Your task to perform on an android device: Open maps Image 0: 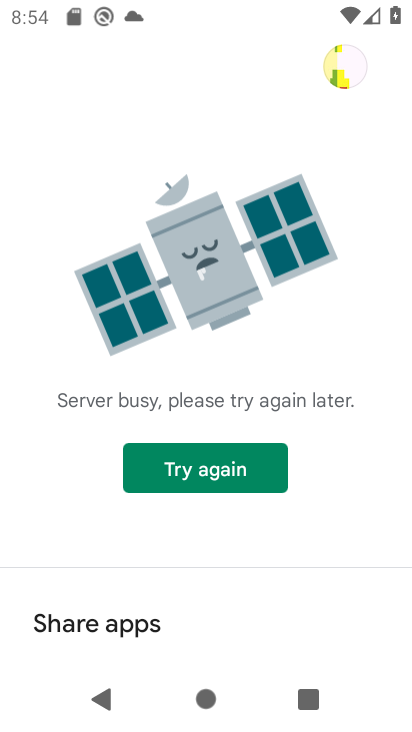
Step 0: press home button
Your task to perform on an android device: Open maps Image 1: 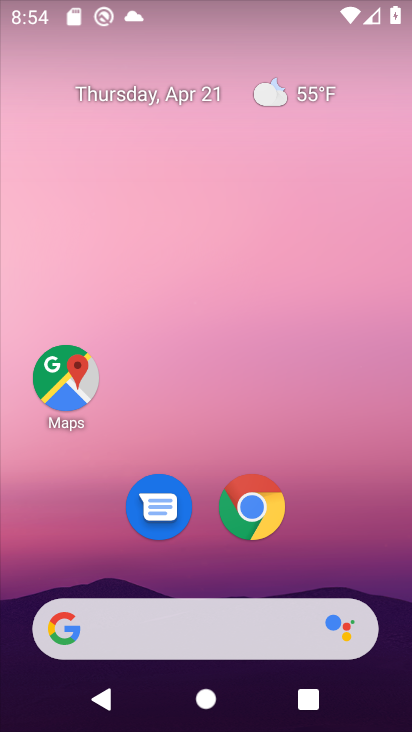
Step 1: drag from (281, 482) to (280, 210)
Your task to perform on an android device: Open maps Image 2: 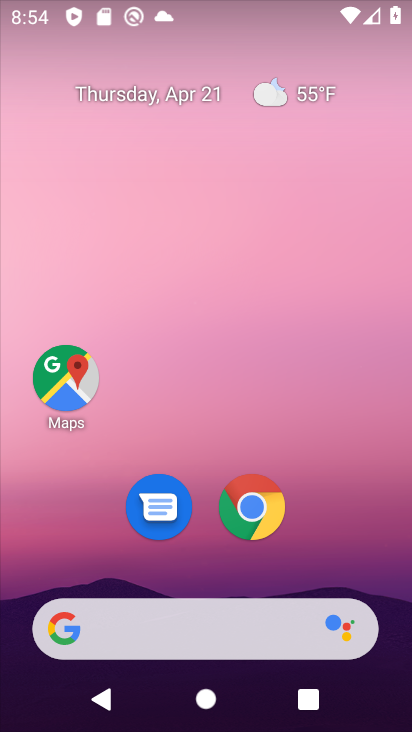
Step 2: drag from (231, 615) to (229, 314)
Your task to perform on an android device: Open maps Image 3: 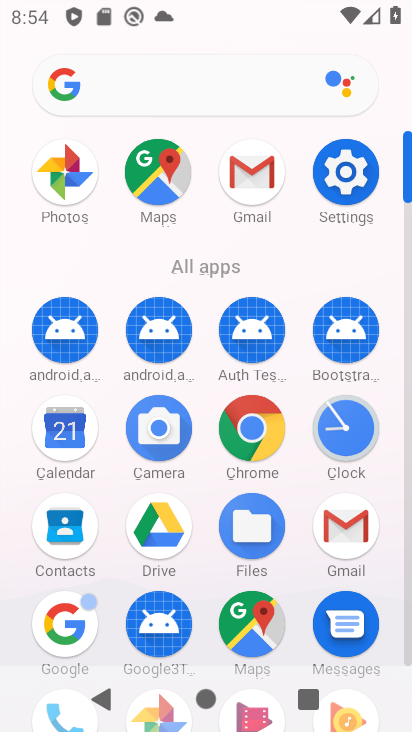
Step 3: click (245, 632)
Your task to perform on an android device: Open maps Image 4: 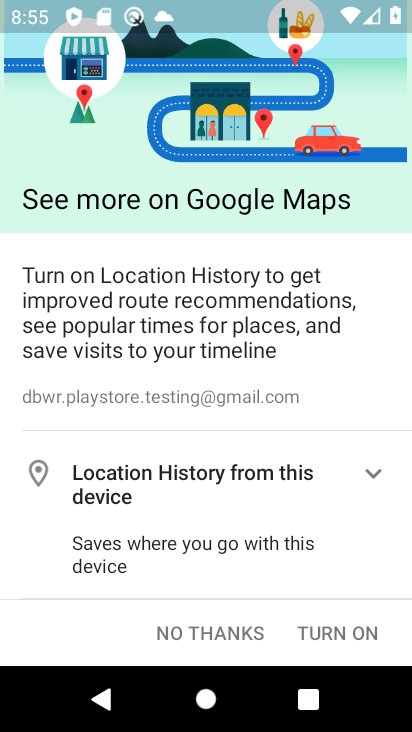
Step 4: click (245, 632)
Your task to perform on an android device: Open maps Image 5: 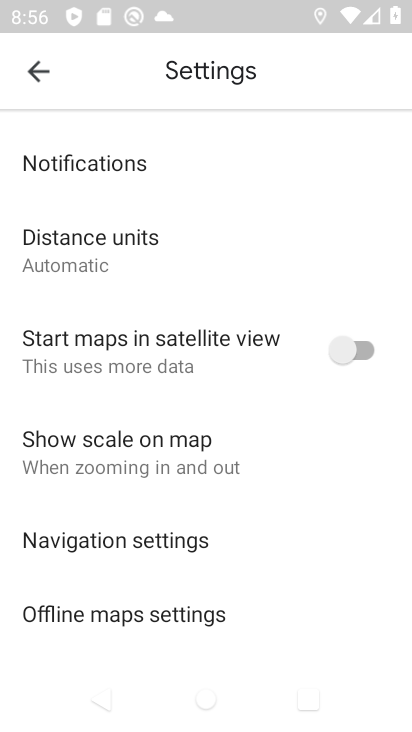
Step 5: click (36, 59)
Your task to perform on an android device: Open maps Image 6: 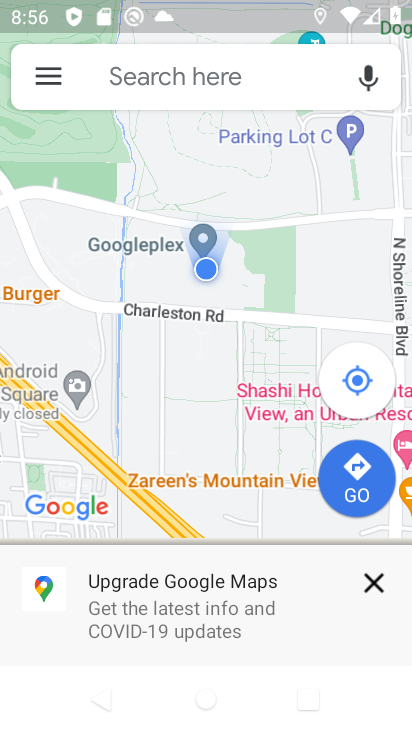
Step 6: click (380, 584)
Your task to perform on an android device: Open maps Image 7: 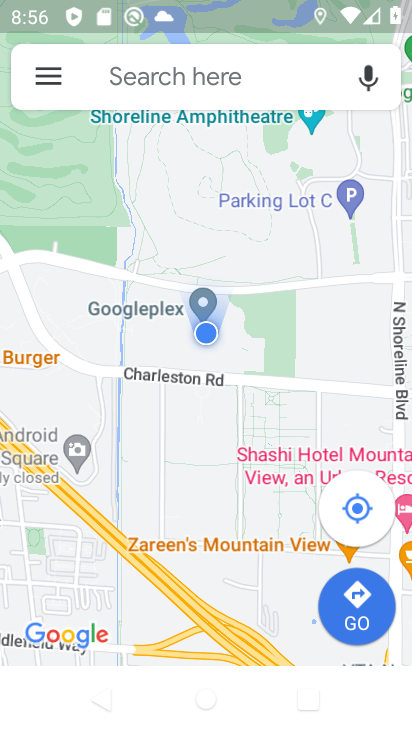
Step 7: task complete